Your task to perform on an android device: Set the phone to "Do not disturb". Image 0: 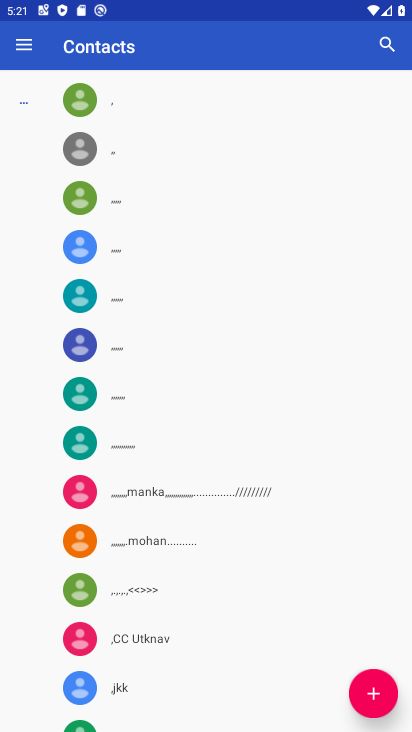
Step 0: press home button
Your task to perform on an android device: Set the phone to "Do not disturb". Image 1: 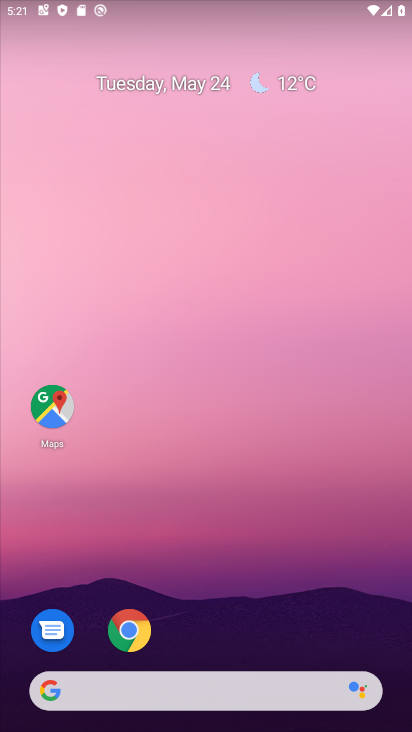
Step 1: drag from (179, 643) to (224, 107)
Your task to perform on an android device: Set the phone to "Do not disturb". Image 2: 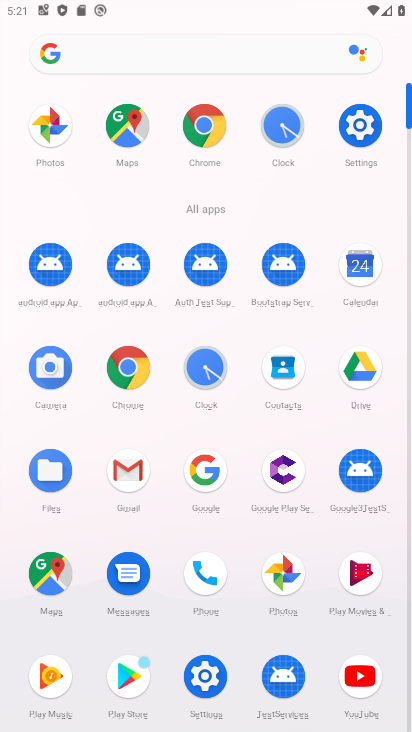
Step 2: click (359, 135)
Your task to perform on an android device: Set the phone to "Do not disturb". Image 3: 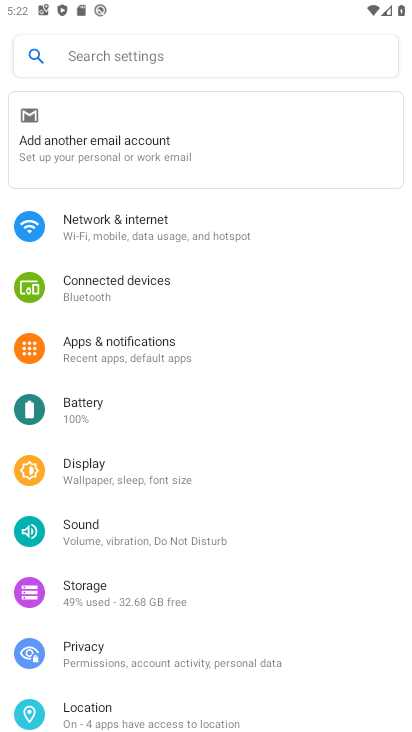
Step 3: click (96, 514)
Your task to perform on an android device: Set the phone to "Do not disturb". Image 4: 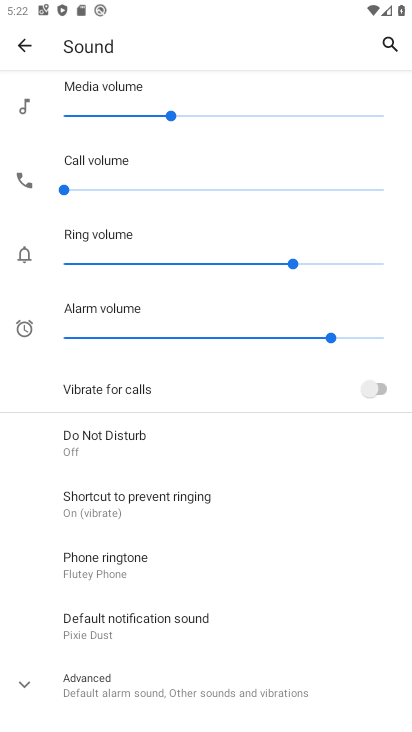
Step 4: click (94, 446)
Your task to perform on an android device: Set the phone to "Do not disturb". Image 5: 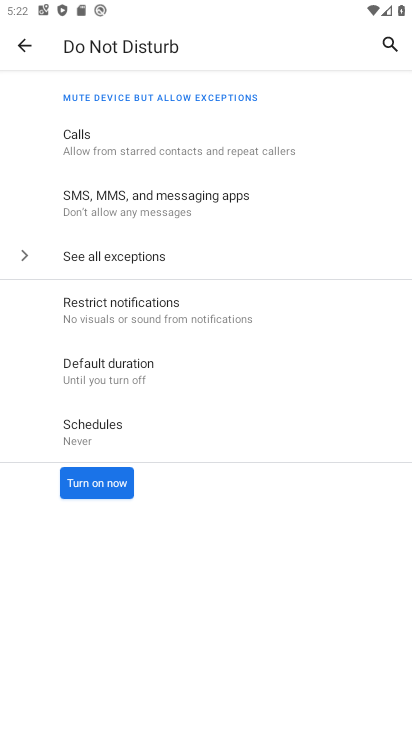
Step 5: click (96, 478)
Your task to perform on an android device: Set the phone to "Do not disturb". Image 6: 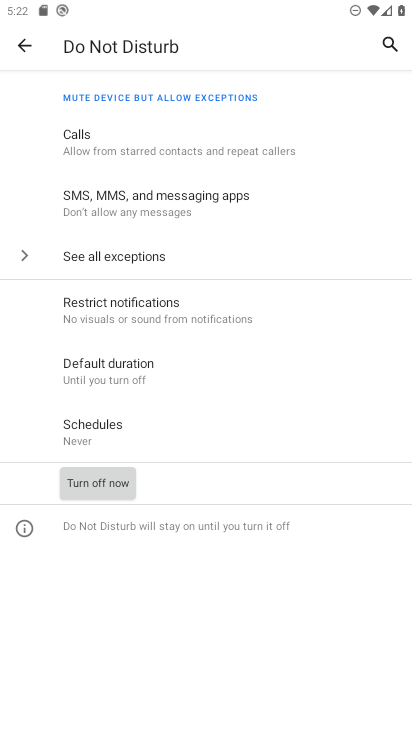
Step 6: task complete